Your task to perform on an android device: turn on wifi Image 0: 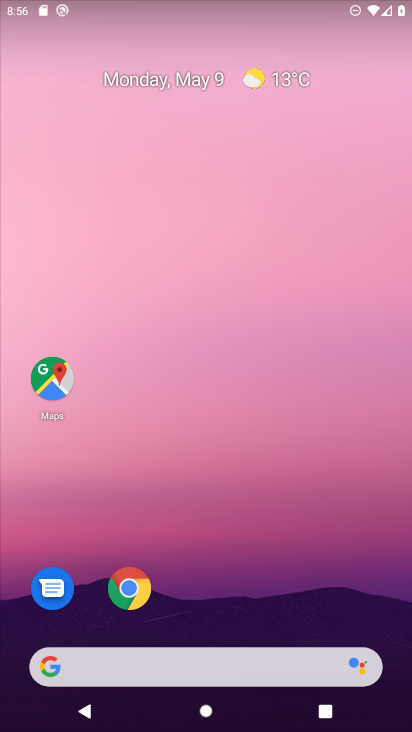
Step 0: drag from (290, 619) to (156, 71)
Your task to perform on an android device: turn on wifi Image 1: 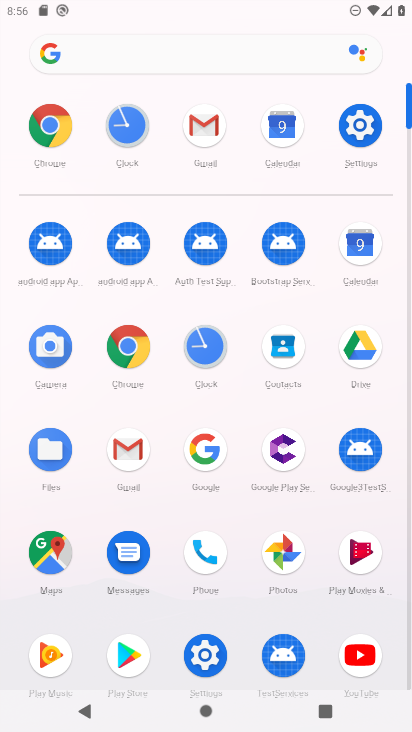
Step 1: click (364, 140)
Your task to perform on an android device: turn on wifi Image 2: 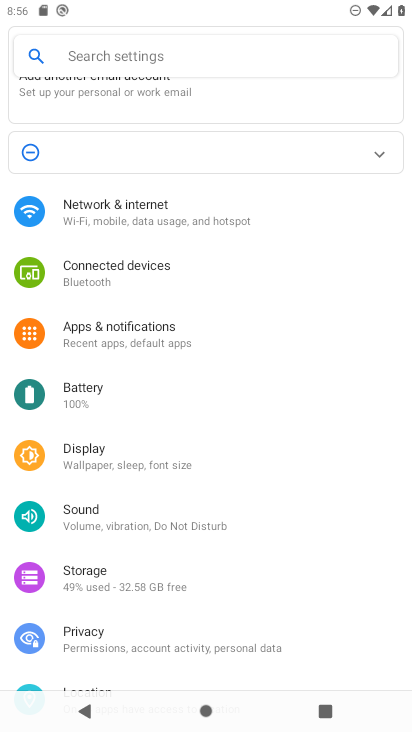
Step 2: click (255, 214)
Your task to perform on an android device: turn on wifi Image 3: 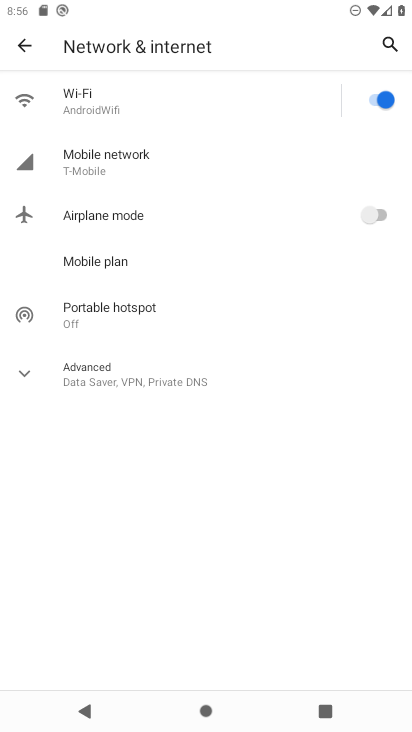
Step 3: click (363, 98)
Your task to perform on an android device: turn on wifi Image 4: 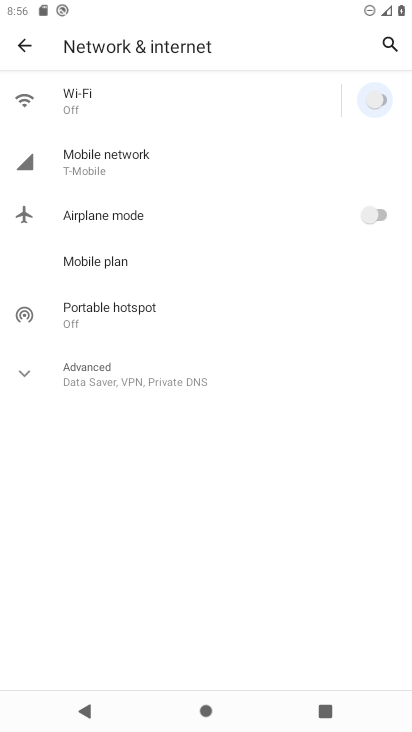
Step 4: click (363, 98)
Your task to perform on an android device: turn on wifi Image 5: 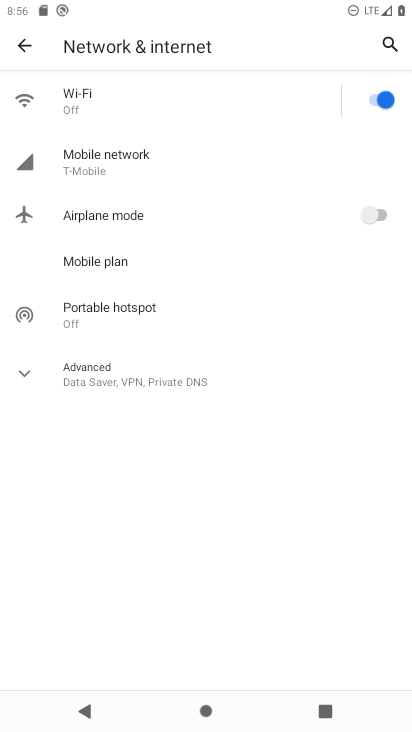
Step 5: click (363, 98)
Your task to perform on an android device: turn on wifi Image 6: 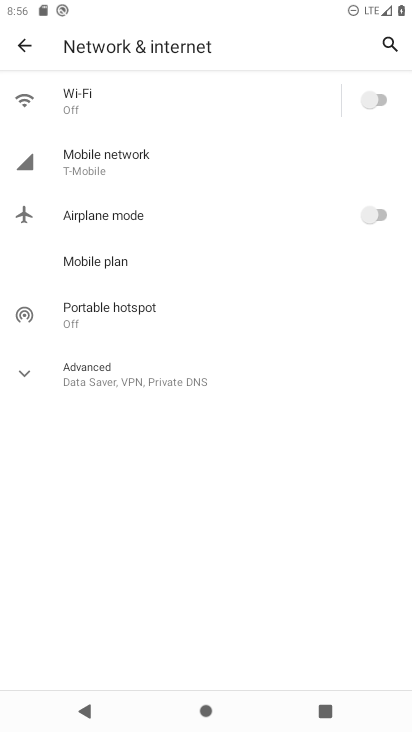
Step 6: task complete